Your task to perform on an android device: turn off priority inbox in the gmail app Image 0: 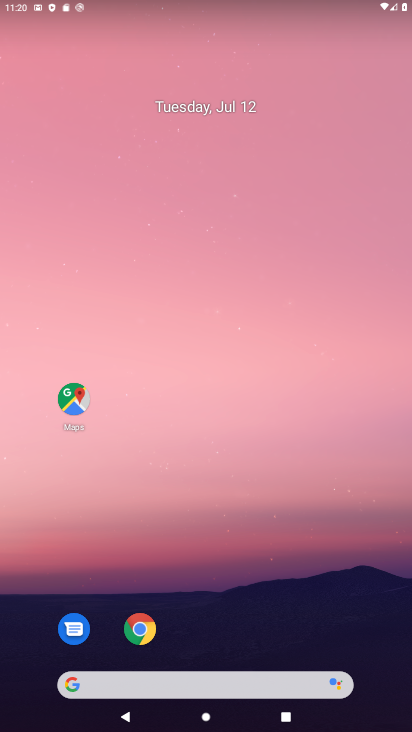
Step 0: drag from (303, 624) to (237, 28)
Your task to perform on an android device: turn off priority inbox in the gmail app Image 1: 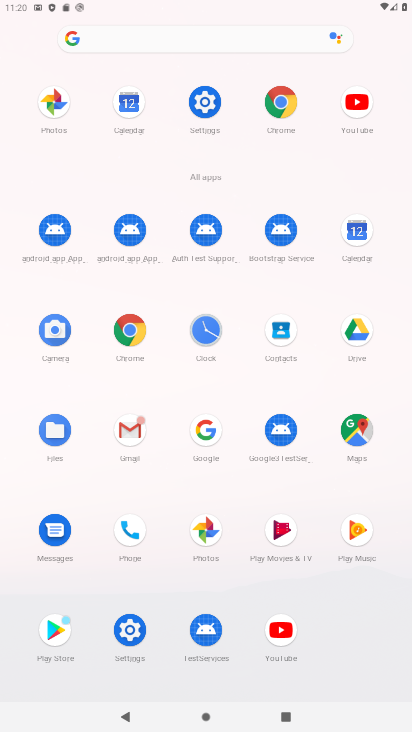
Step 1: click (124, 429)
Your task to perform on an android device: turn off priority inbox in the gmail app Image 2: 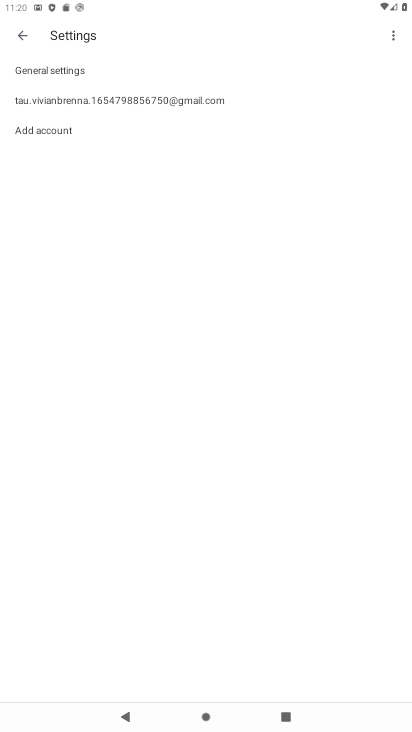
Step 2: click (272, 106)
Your task to perform on an android device: turn off priority inbox in the gmail app Image 3: 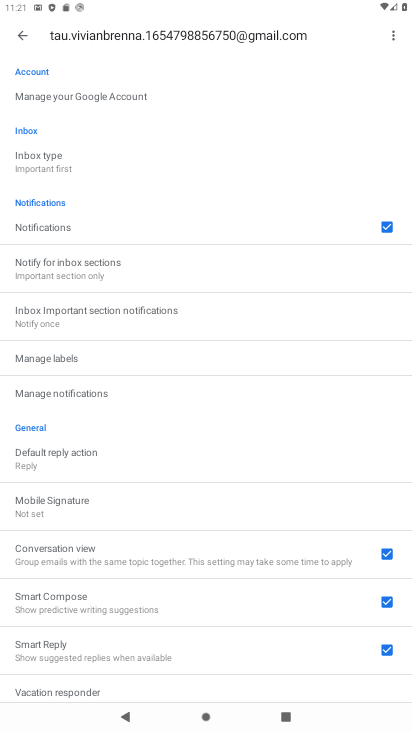
Step 3: click (135, 162)
Your task to perform on an android device: turn off priority inbox in the gmail app Image 4: 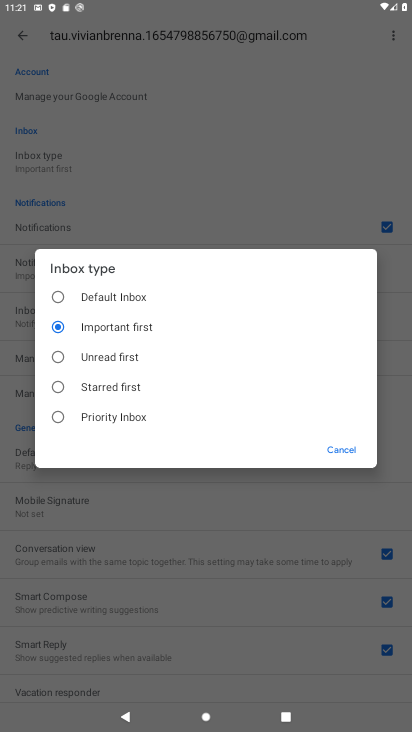
Step 4: task complete